Your task to perform on an android device: Open the stopwatch Image 0: 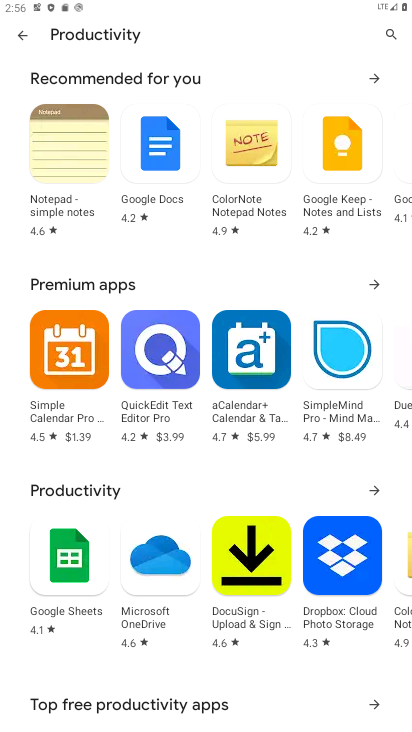
Step 0: press home button
Your task to perform on an android device: Open the stopwatch Image 1: 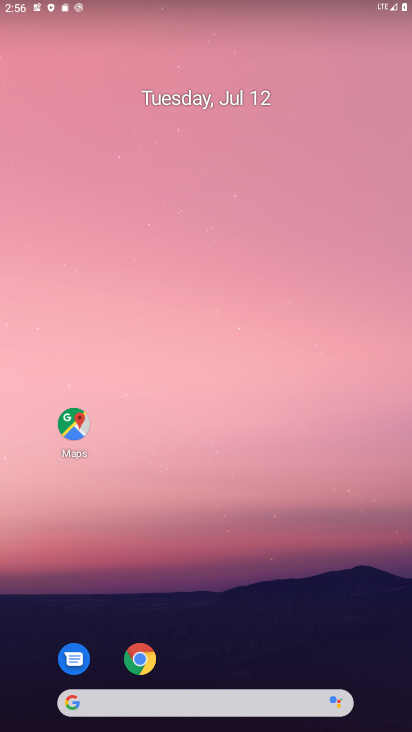
Step 1: click (243, 729)
Your task to perform on an android device: Open the stopwatch Image 2: 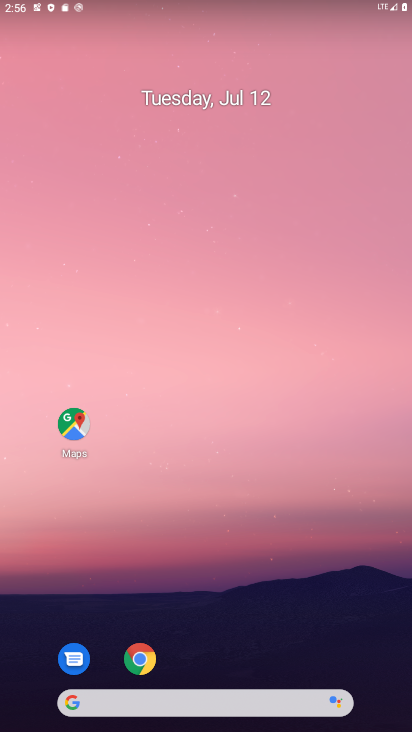
Step 2: click (243, 213)
Your task to perform on an android device: Open the stopwatch Image 3: 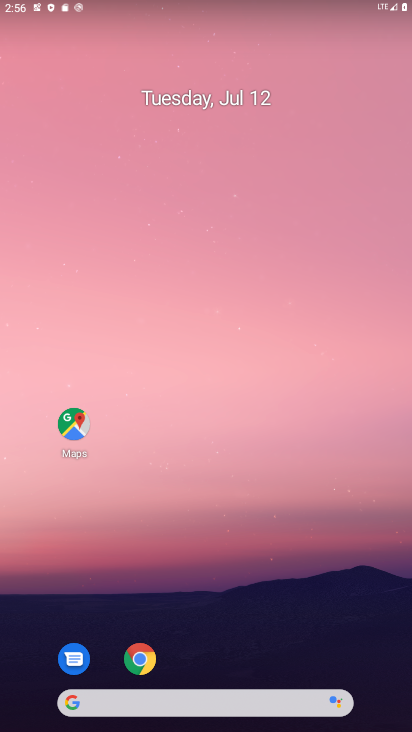
Step 3: drag from (220, 693) to (224, 94)
Your task to perform on an android device: Open the stopwatch Image 4: 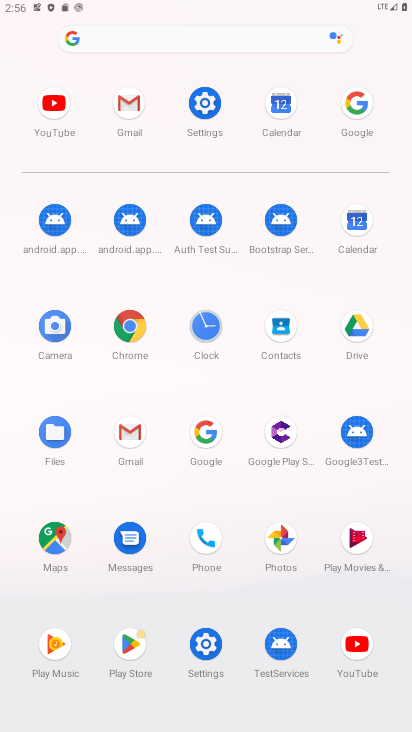
Step 4: click (211, 320)
Your task to perform on an android device: Open the stopwatch Image 5: 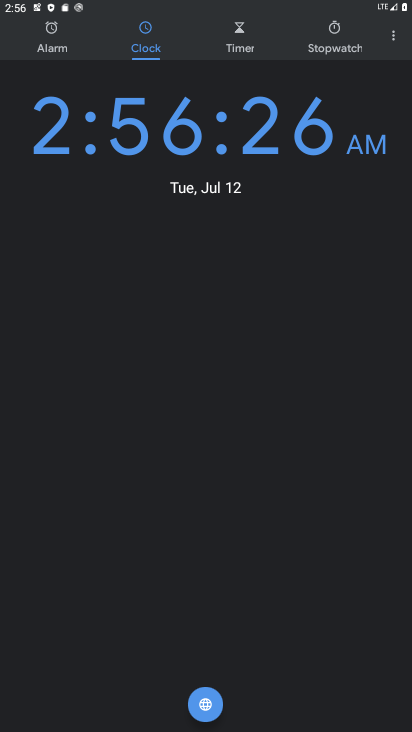
Step 5: click (325, 41)
Your task to perform on an android device: Open the stopwatch Image 6: 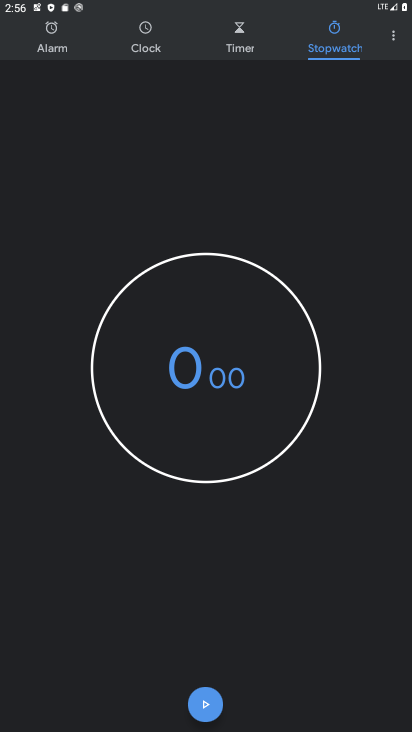
Step 6: task complete